Your task to perform on an android device: Search for sushi restaurants on Maps Image 0: 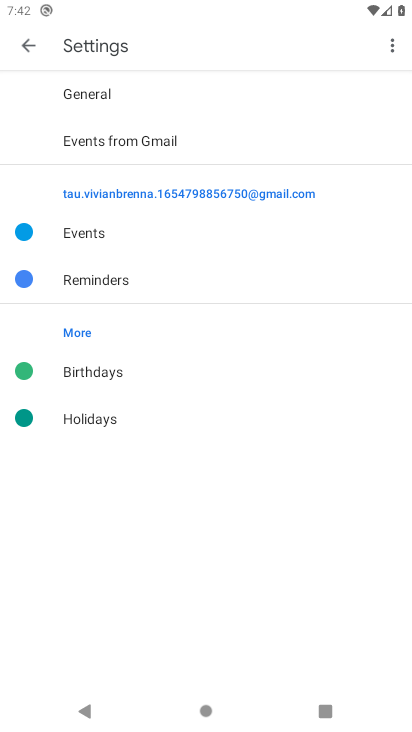
Step 0: press home button
Your task to perform on an android device: Search for sushi restaurants on Maps Image 1: 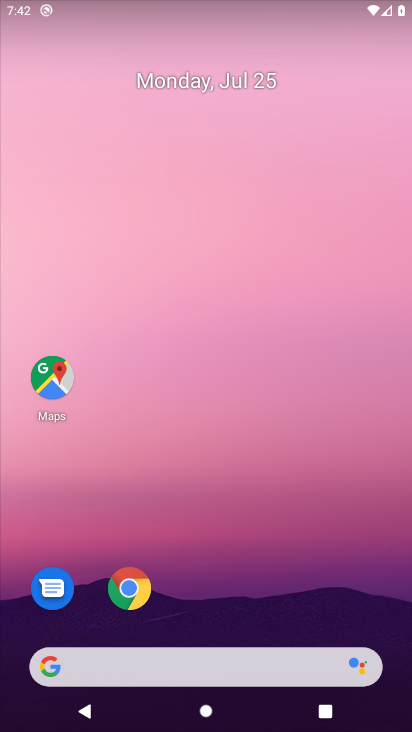
Step 1: click (269, 658)
Your task to perform on an android device: Search for sushi restaurants on Maps Image 2: 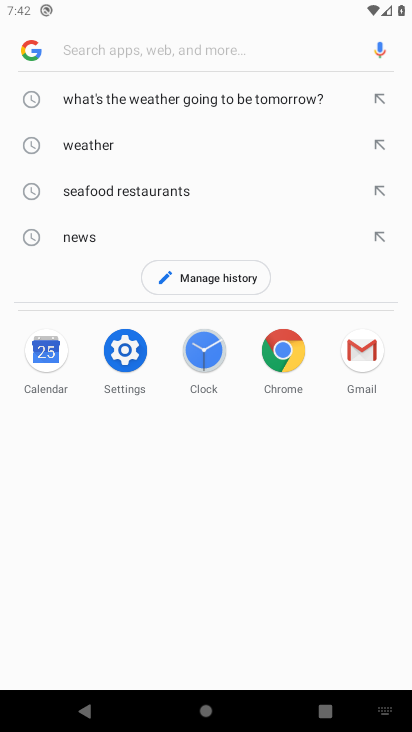
Step 2: type "sushi restaurants"
Your task to perform on an android device: Search for sushi restaurants on Maps Image 3: 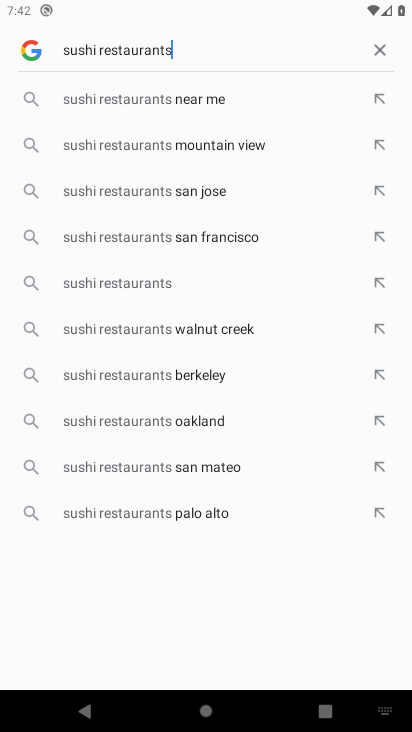
Step 3: press enter
Your task to perform on an android device: Search for sushi restaurants on Maps Image 4: 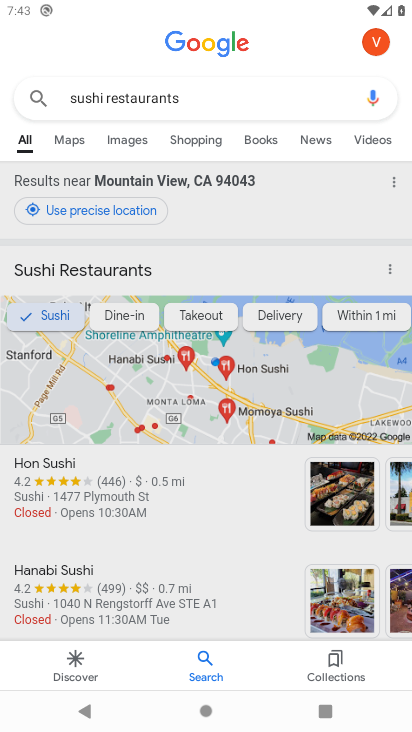
Step 4: task complete